Your task to perform on an android device: Set an alarm for 1pm Image 0: 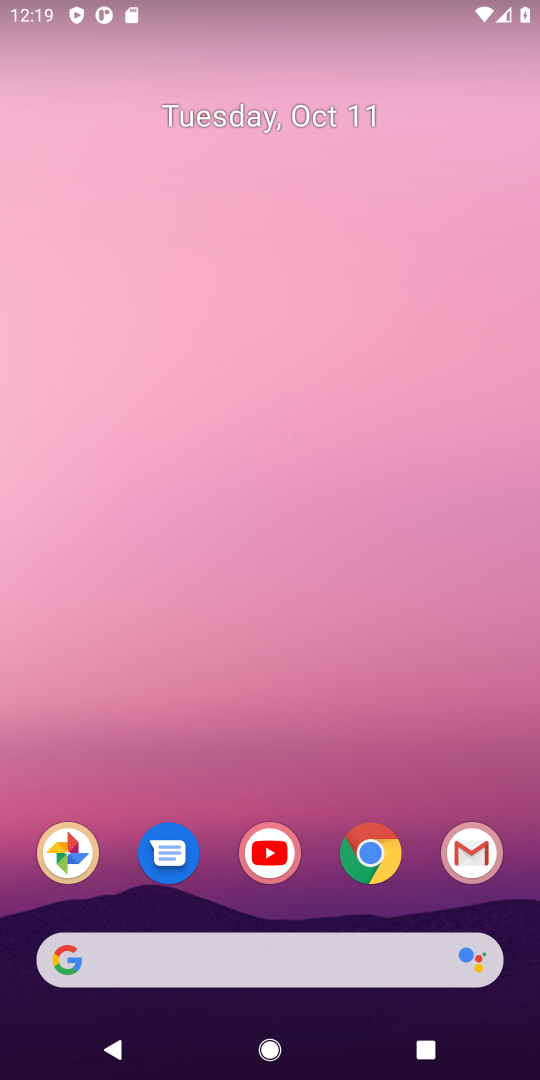
Step 0: drag from (382, 894) to (258, 7)
Your task to perform on an android device: Set an alarm for 1pm Image 1: 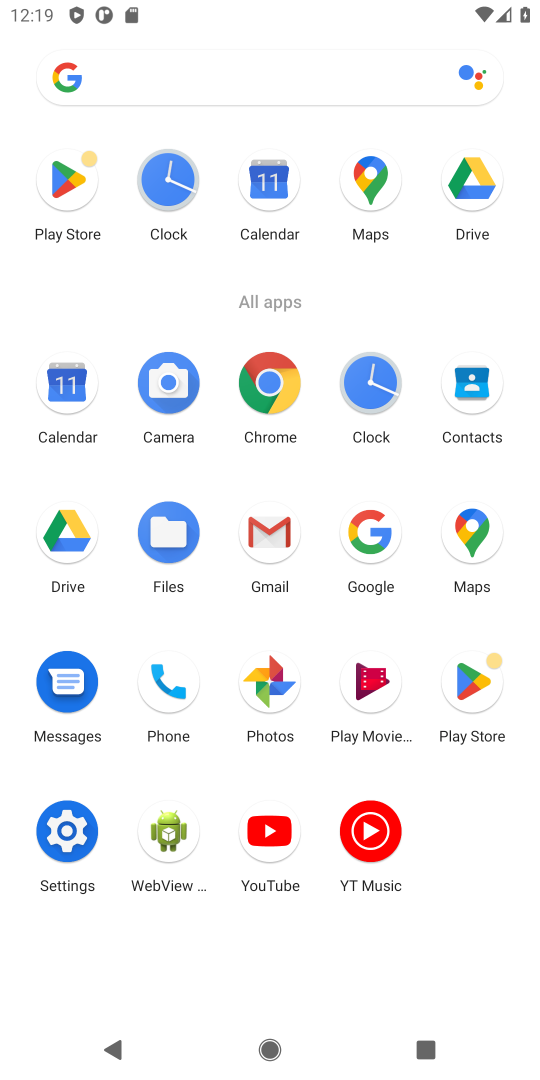
Step 1: click (386, 392)
Your task to perform on an android device: Set an alarm for 1pm Image 2: 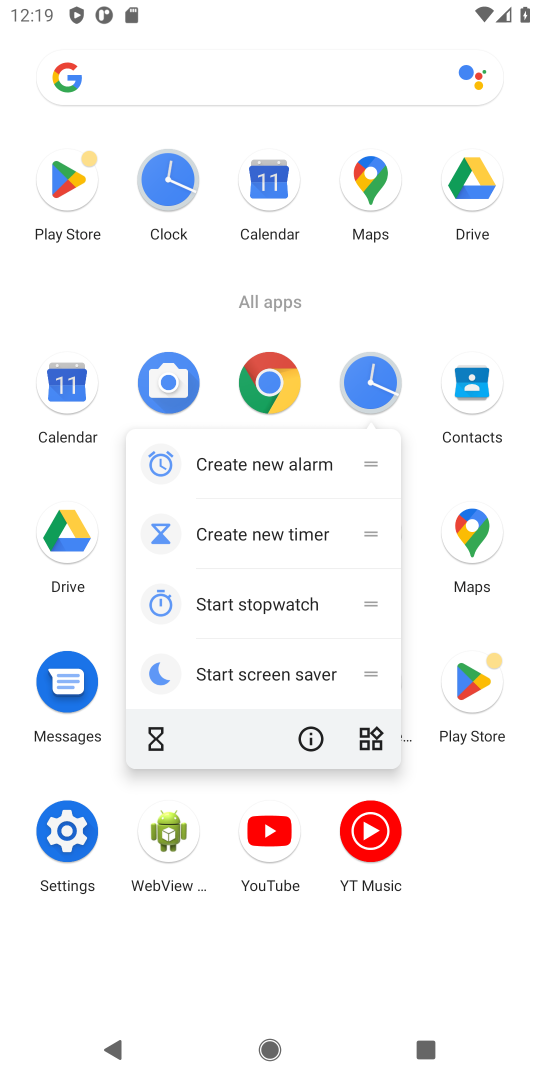
Step 2: click (340, 365)
Your task to perform on an android device: Set an alarm for 1pm Image 3: 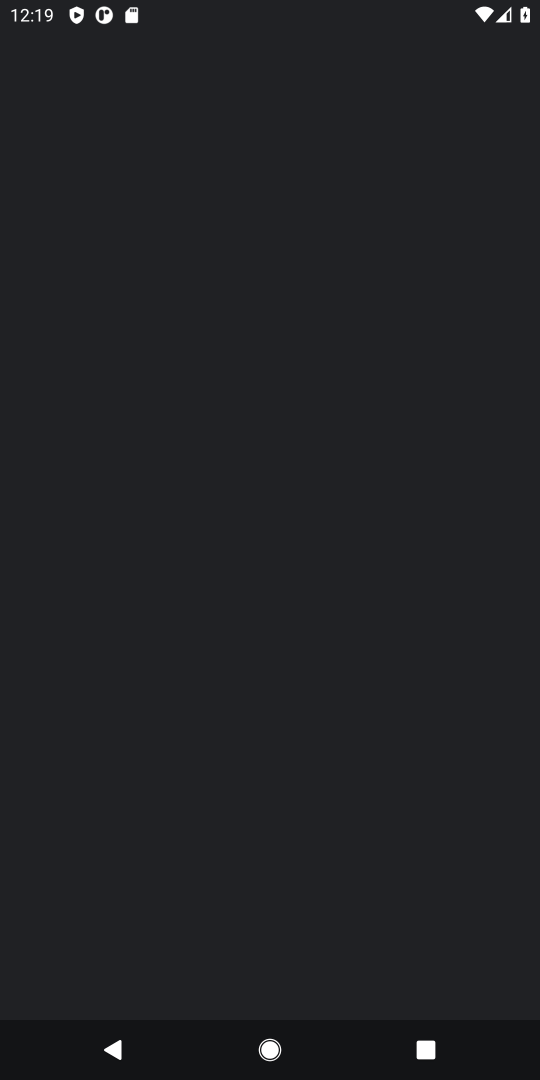
Step 3: click (353, 396)
Your task to perform on an android device: Set an alarm for 1pm Image 4: 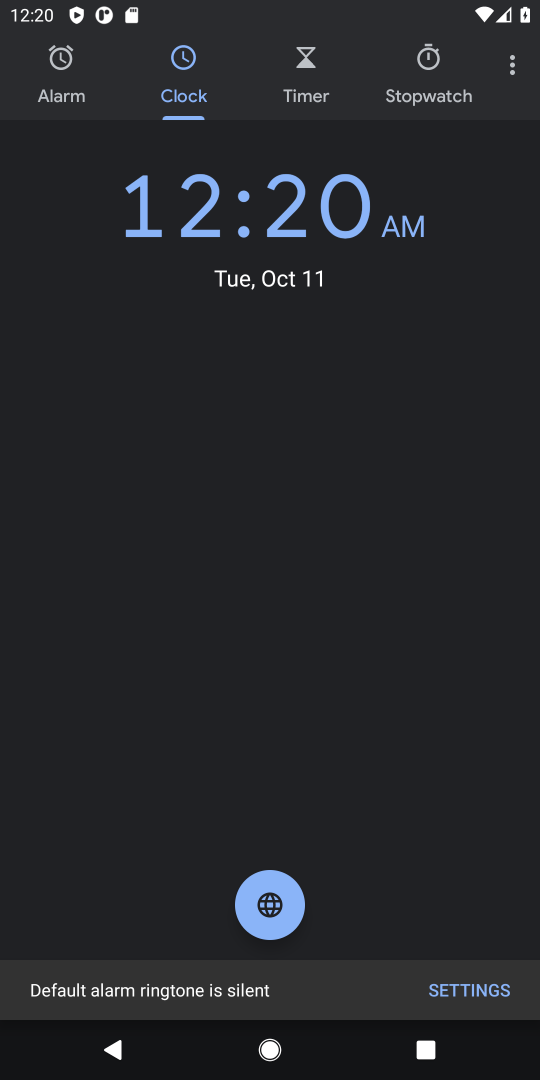
Step 4: click (57, 58)
Your task to perform on an android device: Set an alarm for 1pm Image 5: 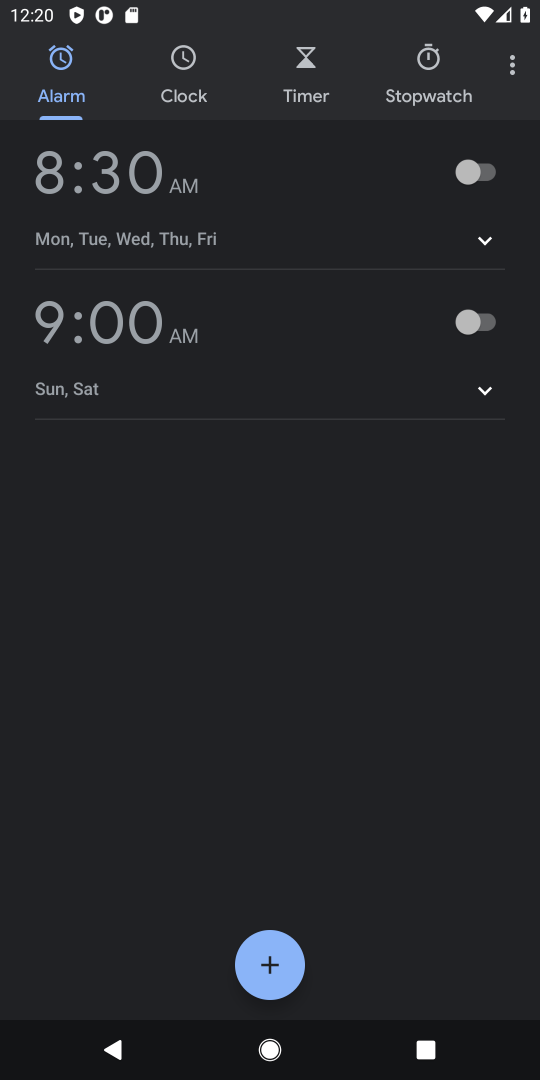
Step 5: click (282, 950)
Your task to perform on an android device: Set an alarm for 1pm Image 6: 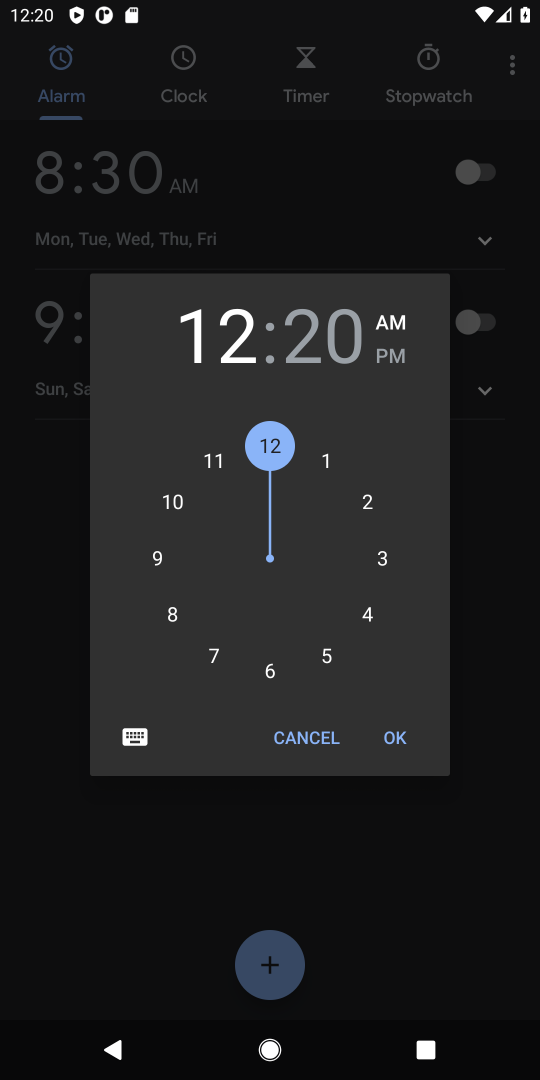
Step 6: click (323, 461)
Your task to perform on an android device: Set an alarm for 1pm Image 7: 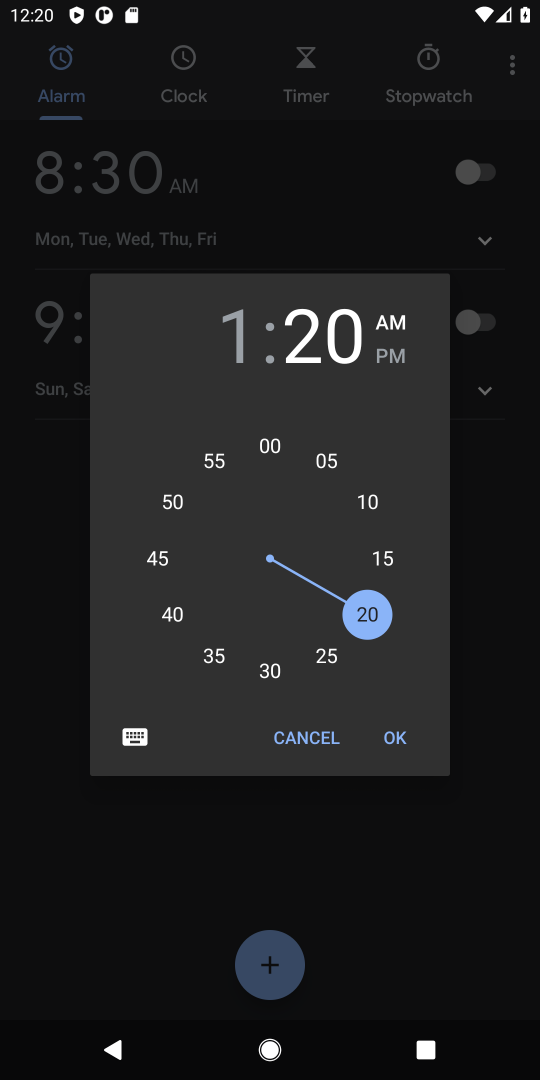
Step 7: click (383, 363)
Your task to perform on an android device: Set an alarm for 1pm Image 8: 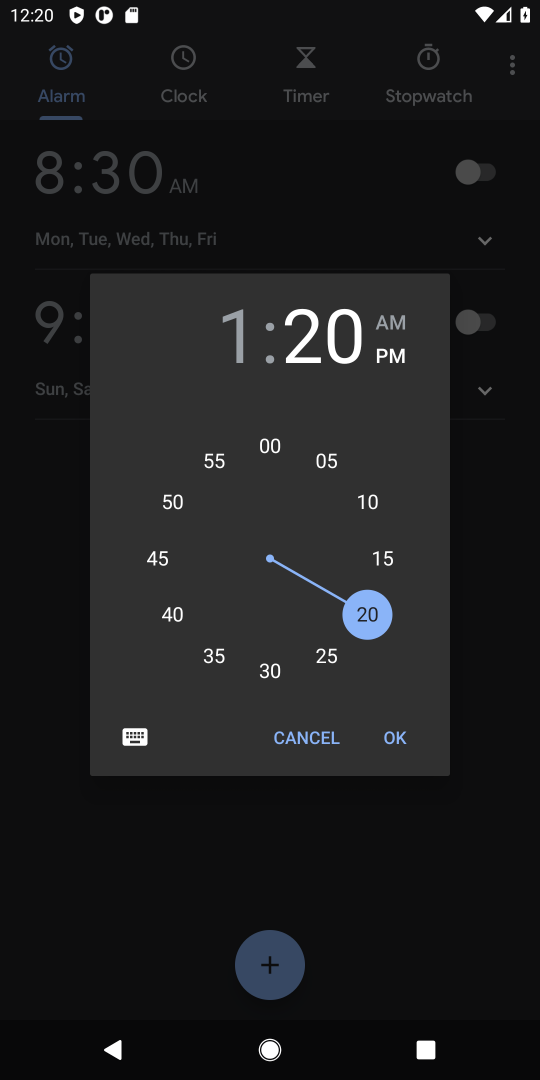
Step 8: click (281, 447)
Your task to perform on an android device: Set an alarm for 1pm Image 9: 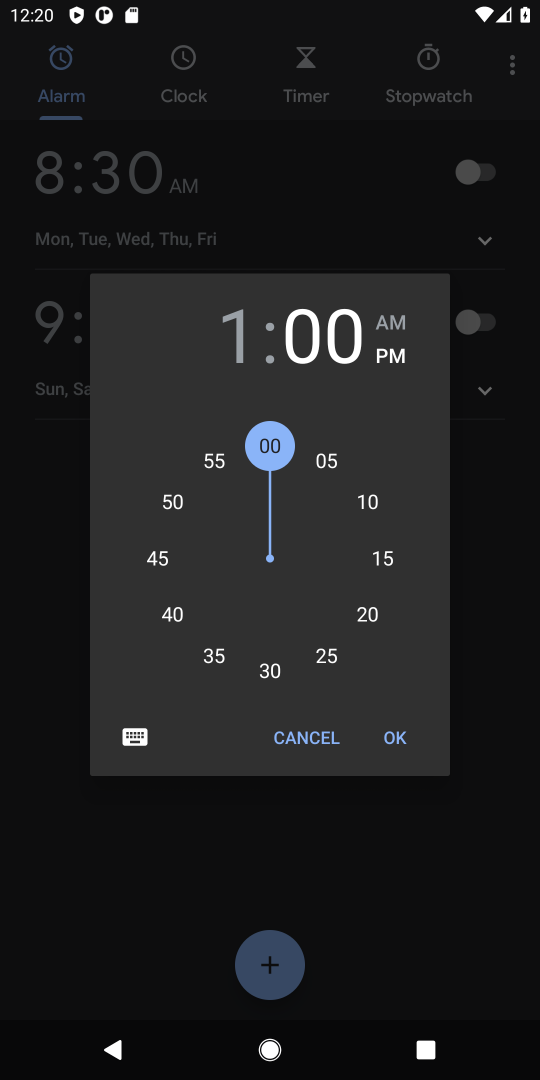
Step 9: click (387, 735)
Your task to perform on an android device: Set an alarm for 1pm Image 10: 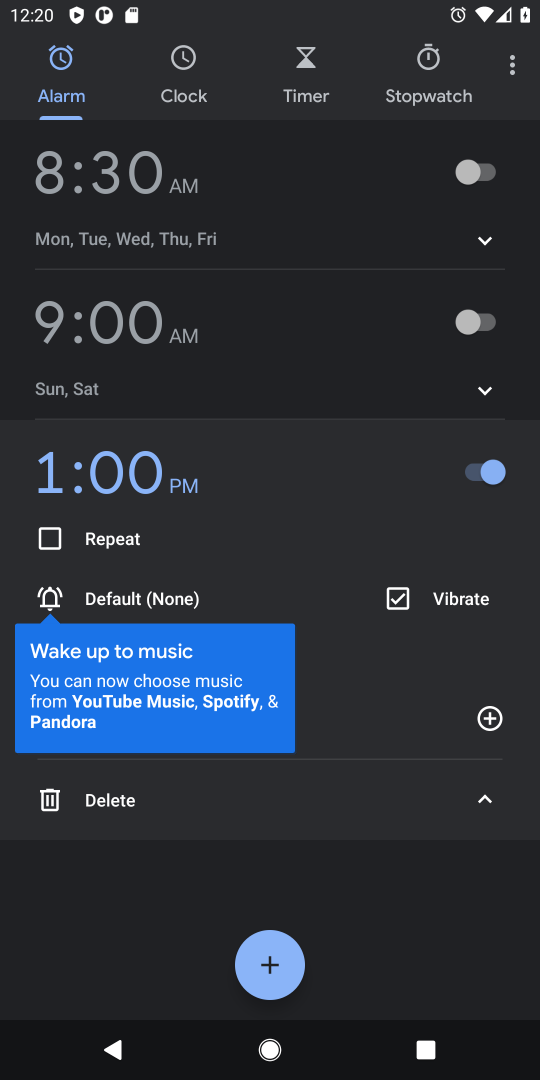
Step 10: click (43, 538)
Your task to perform on an android device: Set an alarm for 1pm Image 11: 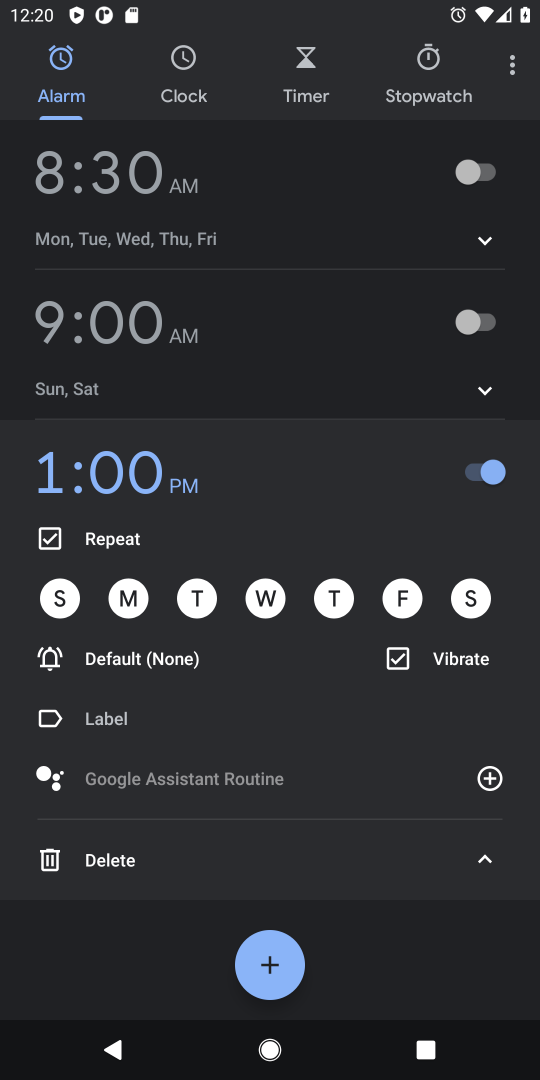
Step 11: click (94, 723)
Your task to perform on an android device: Set an alarm for 1pm Image 12: 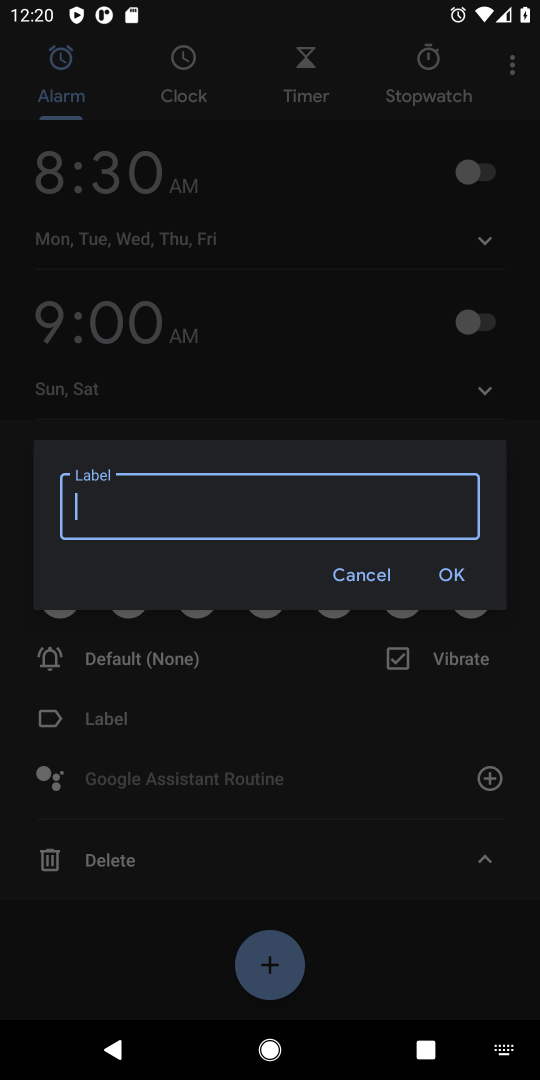
Step 12: type "Important Meeting"
Your task to perform on an android device: Set an alarm for 1pm Image 13: 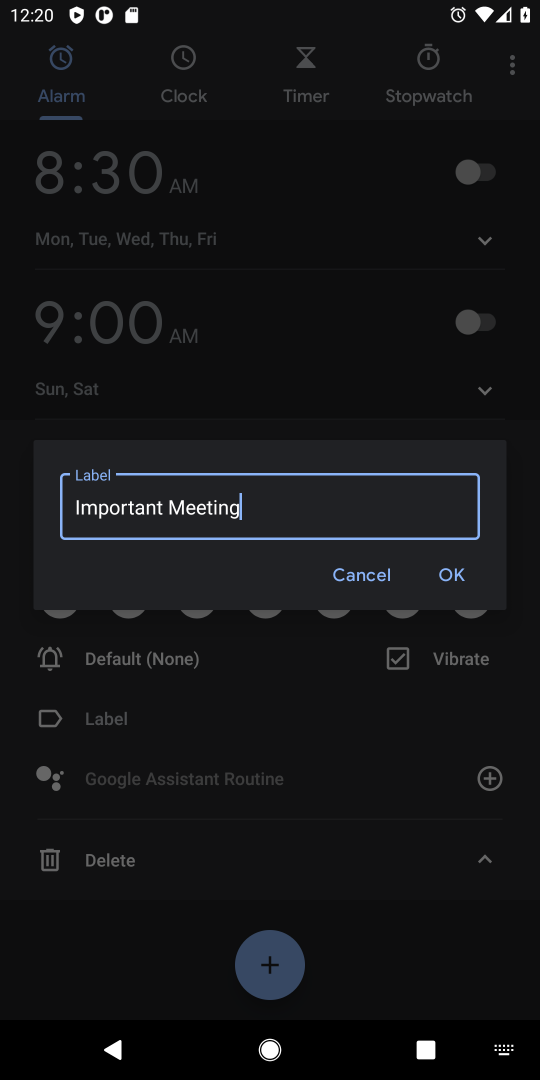
Step 13: type ""
Your task to perform on an android device: Set an alarm for 1pm Image 14: 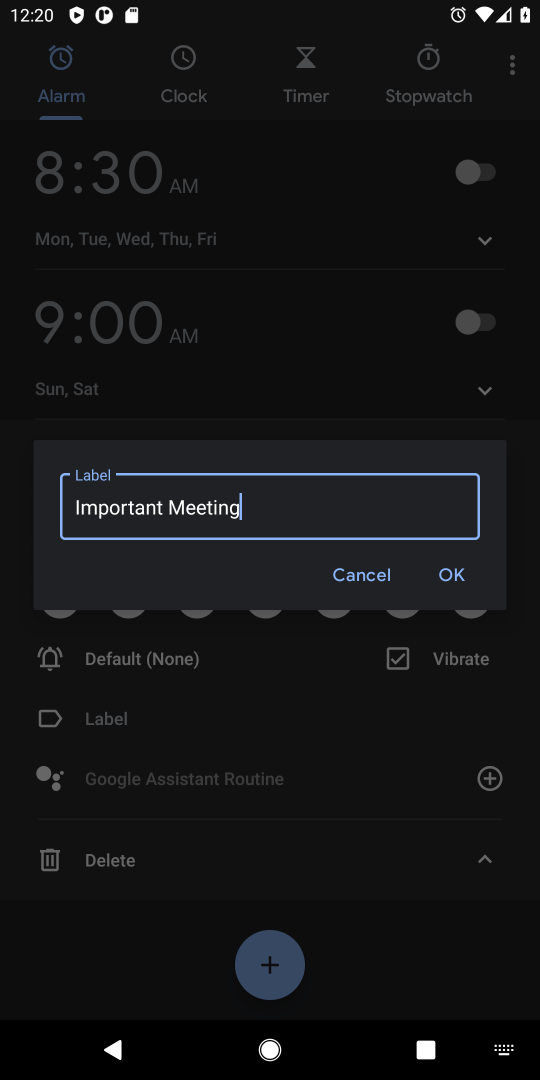
Step 14: click (468, 578)
Your task to perform on an android device: Set an alarm for 1pm Image 15: 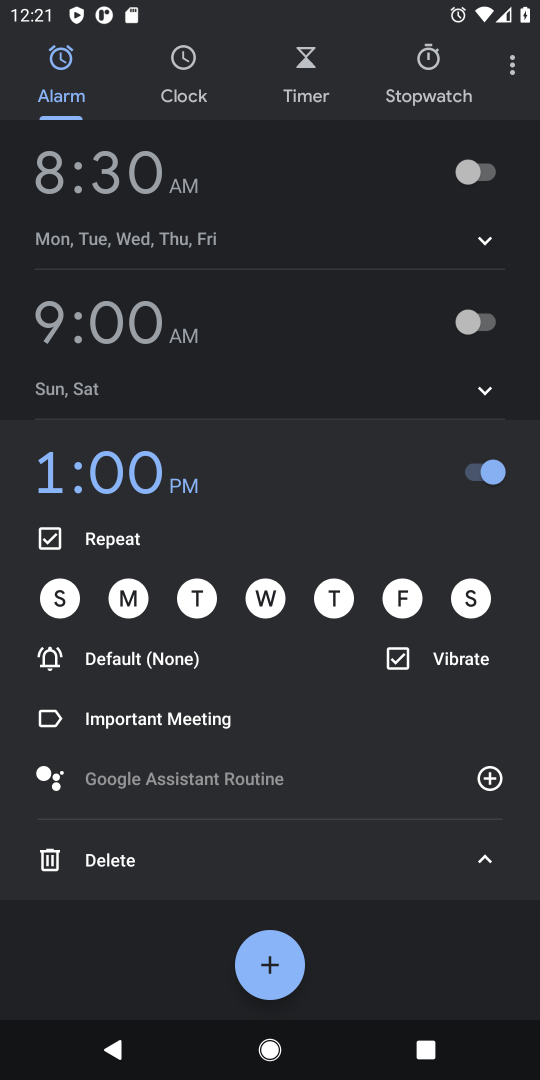
Step 15: drag from (193, 432) to (258, 302)
Your task to perform on an android device: Set an alarm for 1pm Image 16: 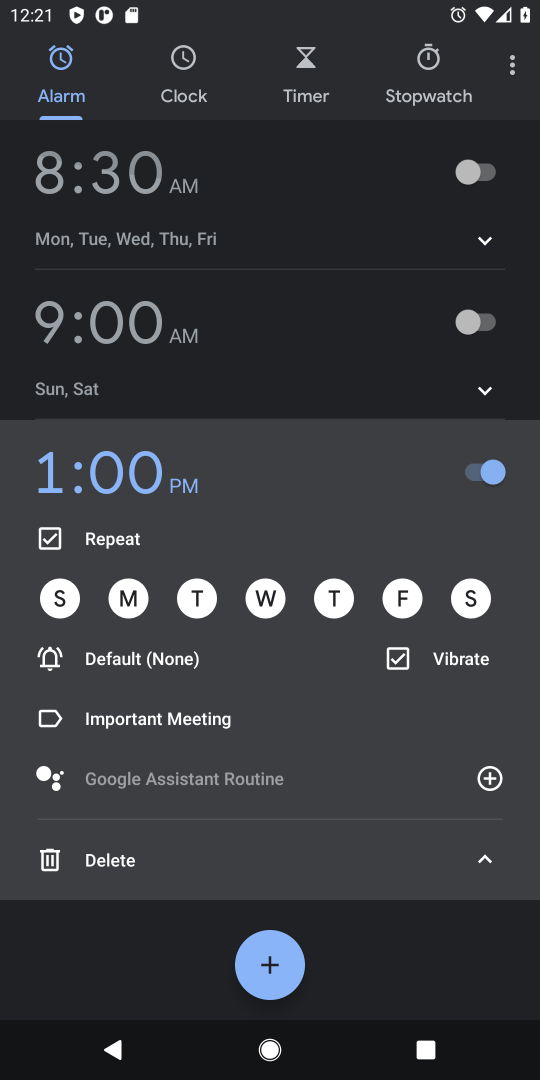
Step 16: drag from (255, 295) to (261, 344)
Your task to perform on an android device: Set an alarm for 1pm Image 17: 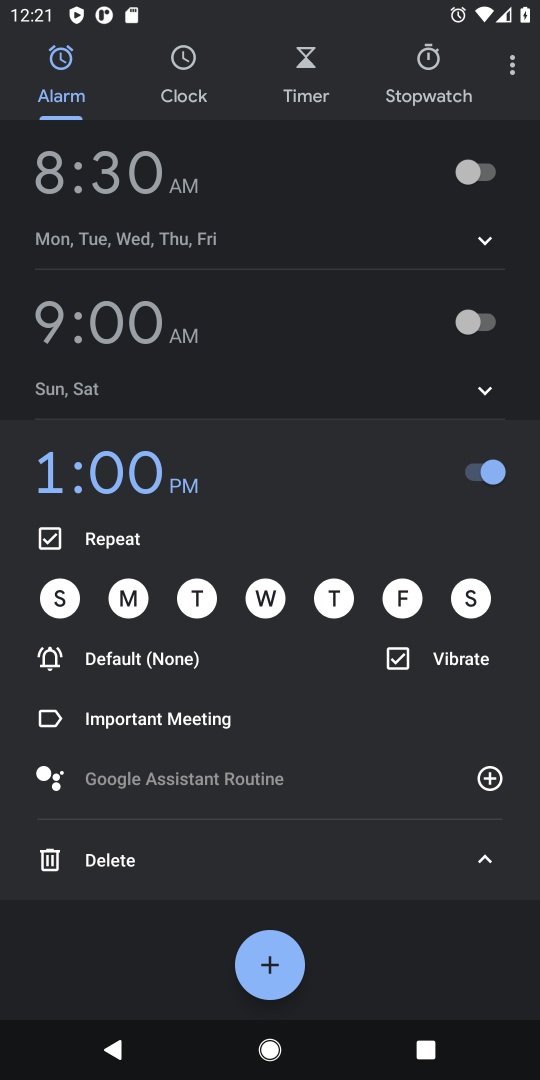
Step 17: click (478, 859)
Your task to perform on an android device: Set an alarm for 1pm Image 18: 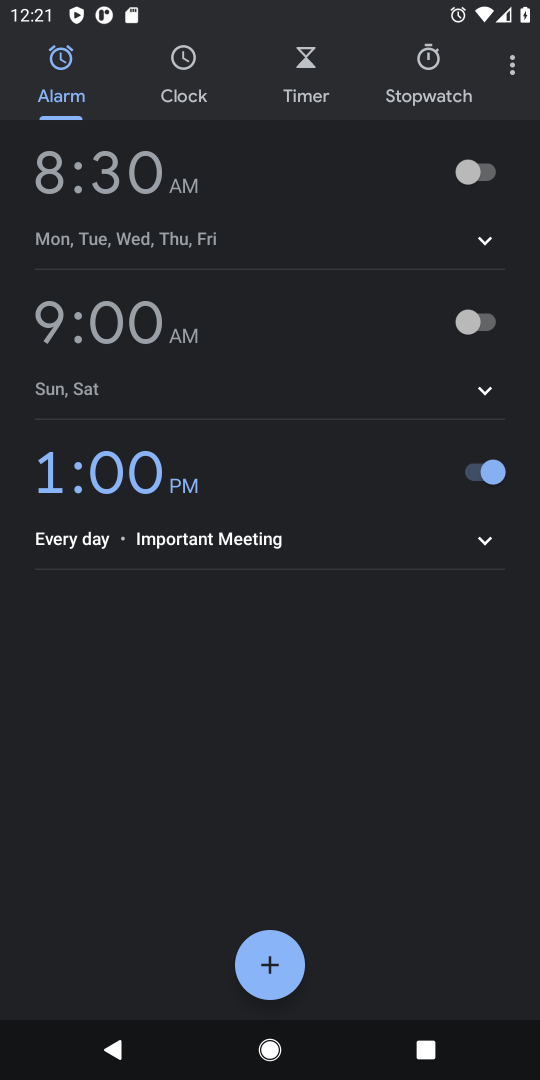
Step 18: click (489, 384)
Your task to perform on an android device: Set an alarm for 1pm Image 19: 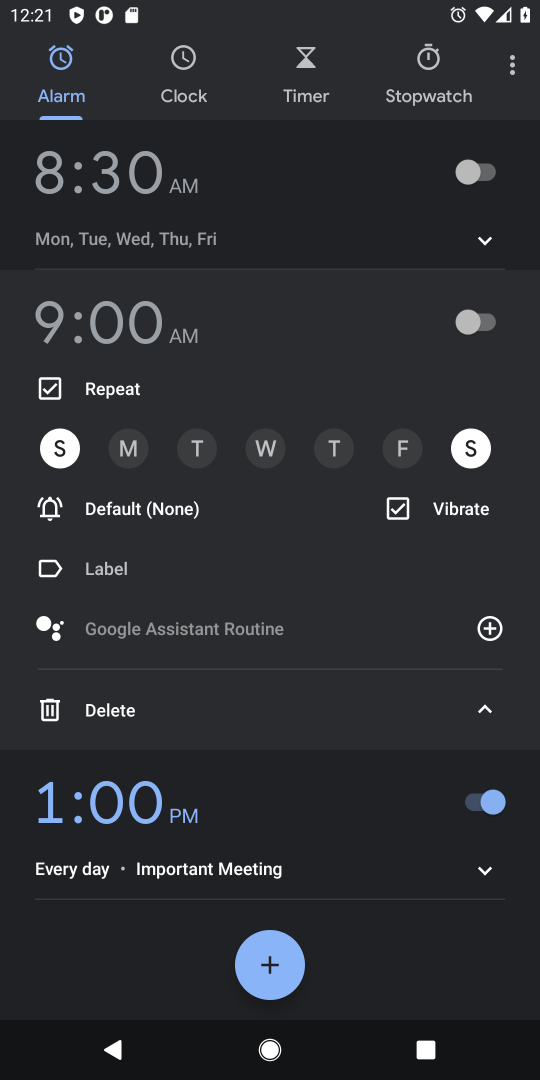
Step 19: click (61, 704)
Your task to perform on an android device: Set an alarm for 1pm Image 20: 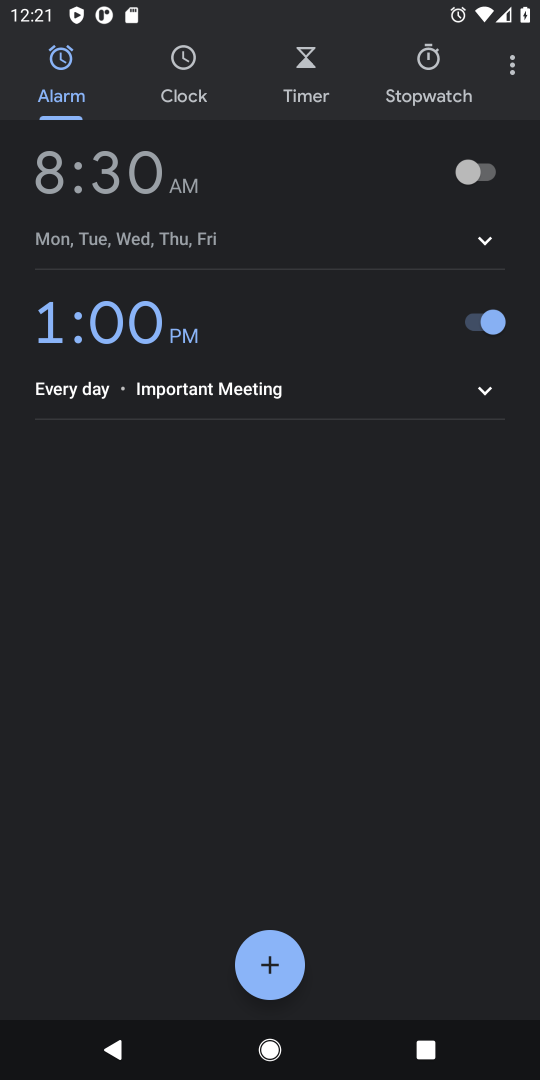
Step 20: click (251, 211)
Your task to perform on an android device: Set an alarm for 1pm Image 21: 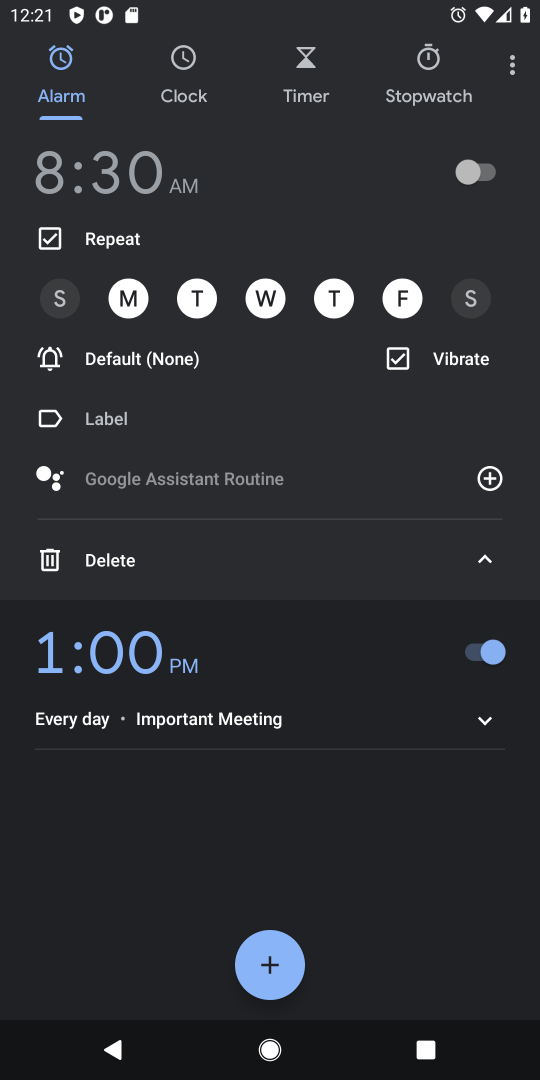
Step 21: click (68, 550)
Your task to perform on an android device: Set an alarm for 1pm Image 22: 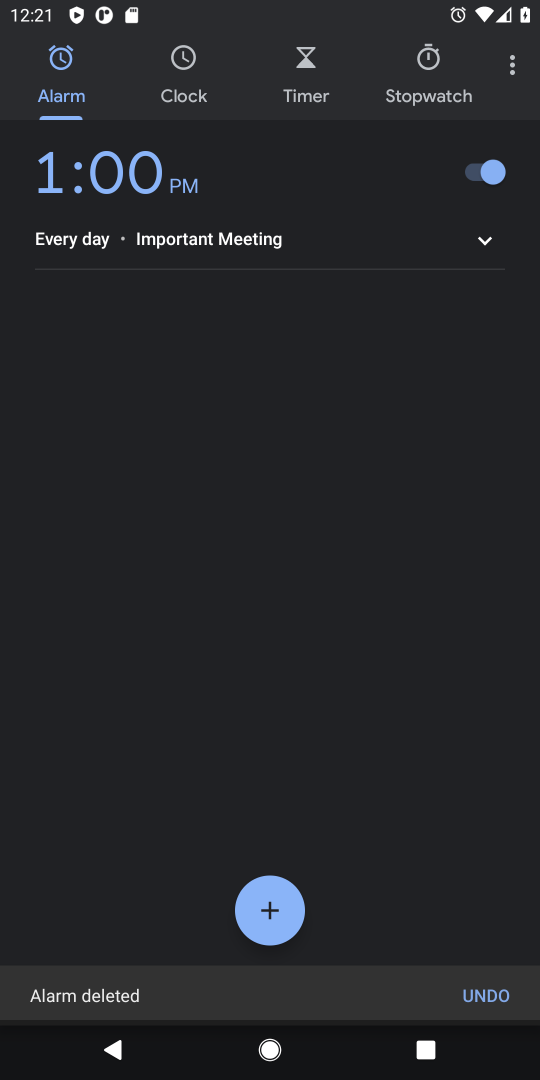
Step 22: task complete